Your task to perform on an android device: Go to settings Image 0: 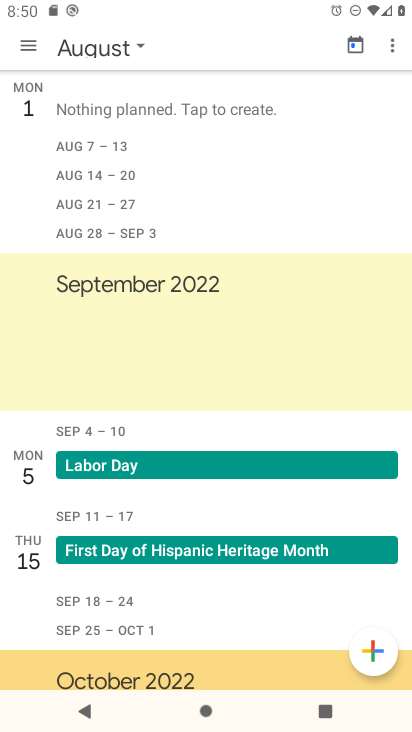
Step 0: press home button
Your task to perform on an android device: Go to settings Image 1: 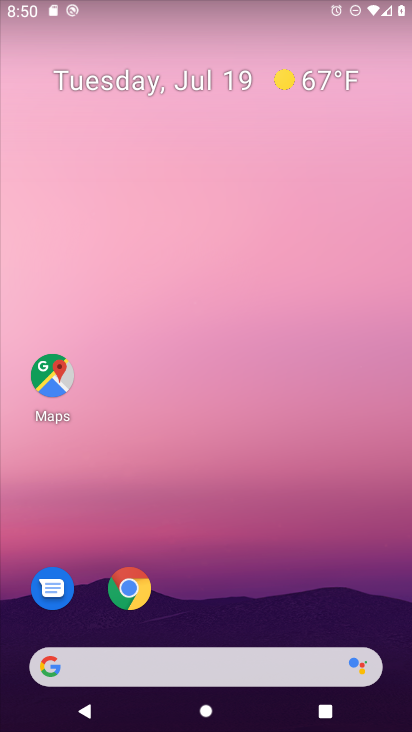
Step 1: drag from (346, 583) to (356, 89)
Your task to perform on an android device: Go to settings Image 2: 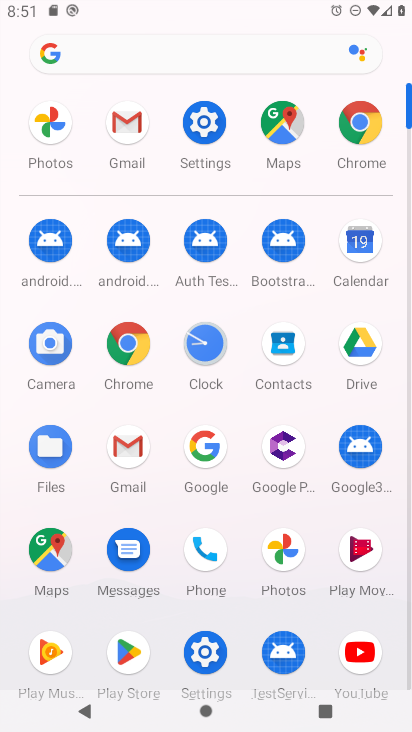
Step 2: click (210, 138)
Your task to perform on an android device: Go to settings Image 3: 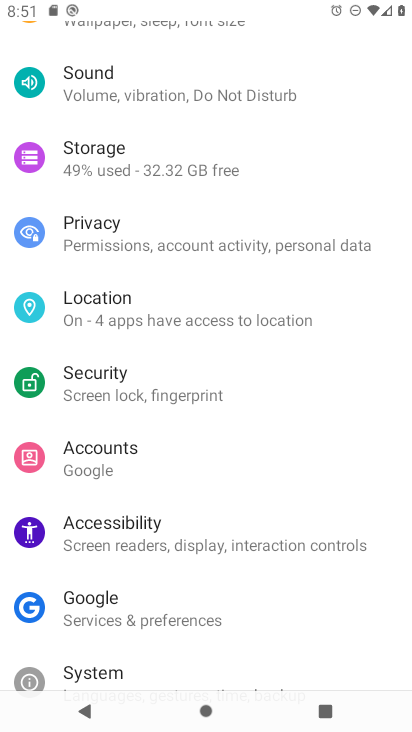
Step 3: task complete